Your task to perform on an android device: delete location history Image 0: 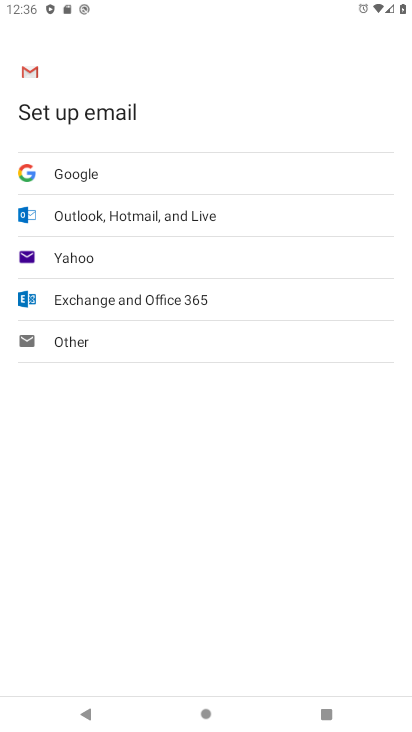
Step 0: press back button
Your task to perform on an android device: delete location history Image 1: 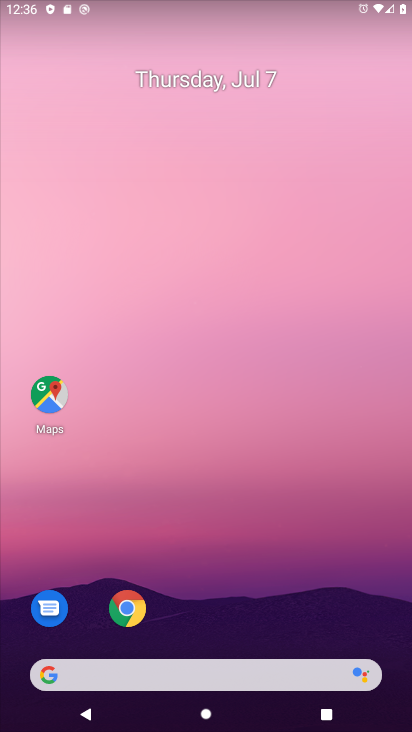
Step 1: click (42, 402)
Your task to perform on an android device: delete location history Image 2: 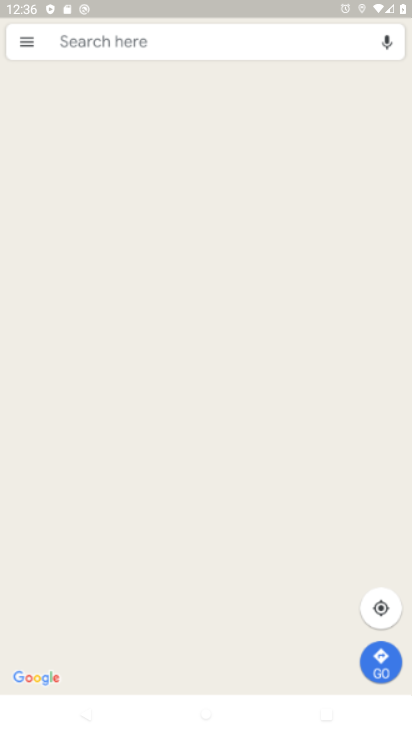
Step 2: click (30, 34)
Your task to perform on an android device: delete location history Image 3: 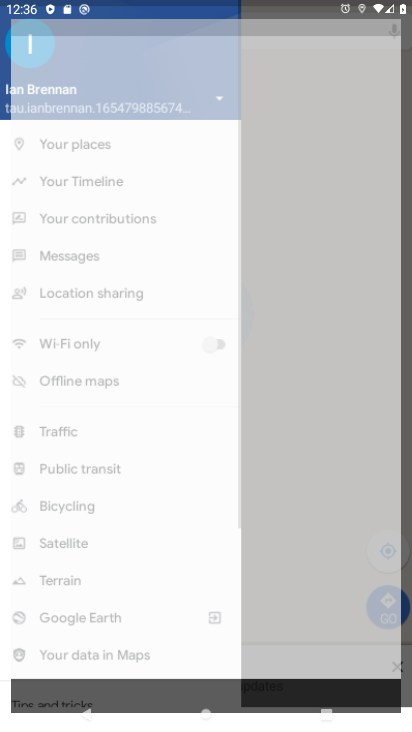
Step 3: click (132, 181)
Your task to perform on an android device: delete location history Image 4: 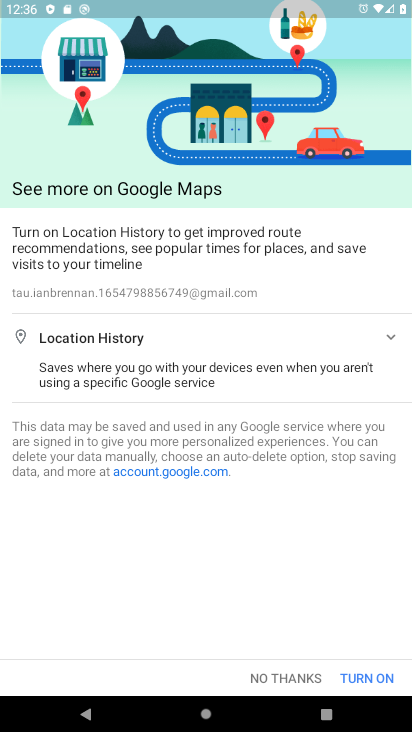
Step 4: click (279, 670)
Your task to perform on an android device: delete location history Image 5: 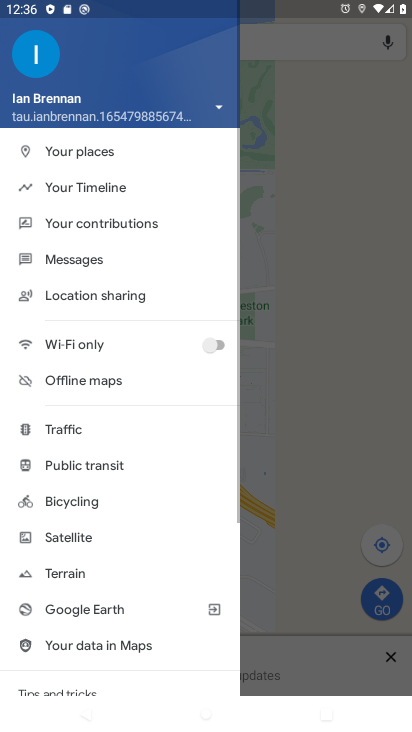
Step 5: click (81, 197)
Your task to perform on an android device: delete location history Image 6: 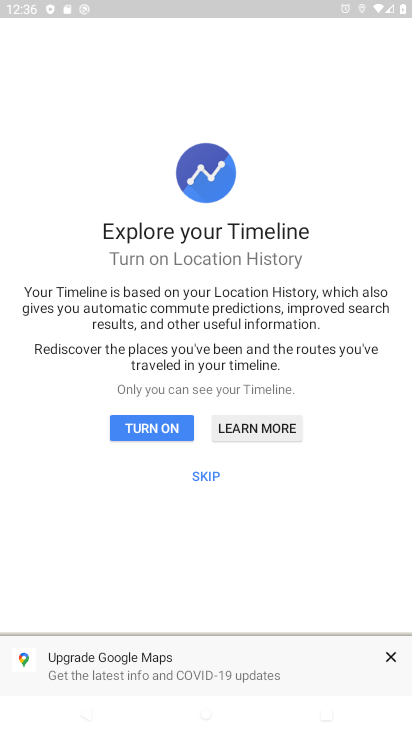
Step 6: click (200, 473)
Your task to perform on an android device: delete location history Image 7: 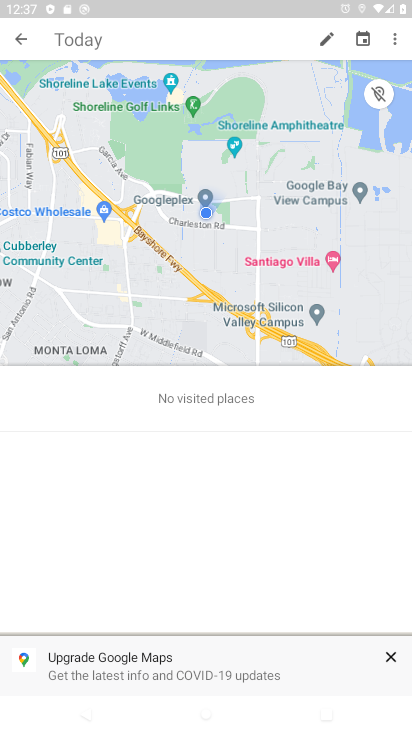
Step 7: click (392, 29)
Your task to perform on an android device: delete location history Image 8: 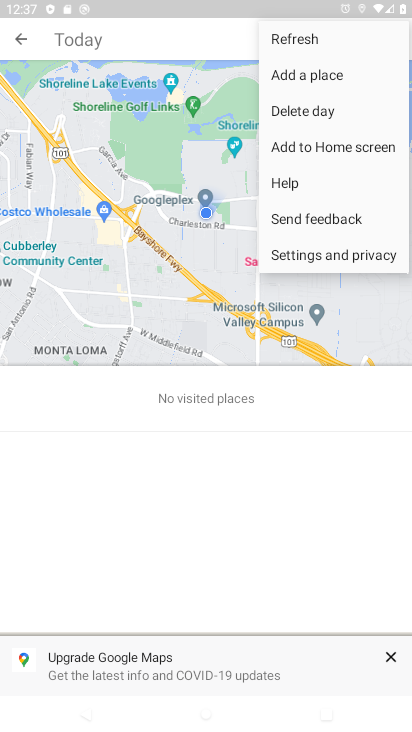
Step 8: click (300, 250)
Your task to perform on an android device: delete location history Image 9: 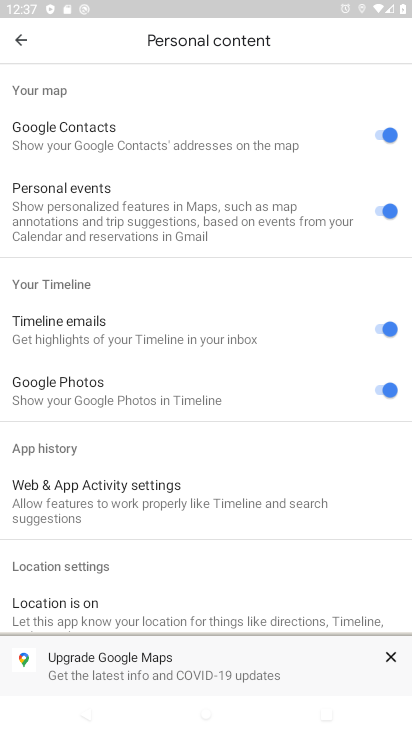
Step 9: drag from (158, 565) to (250, 110)
Your task to perform on an android device: delete location history Image 10: 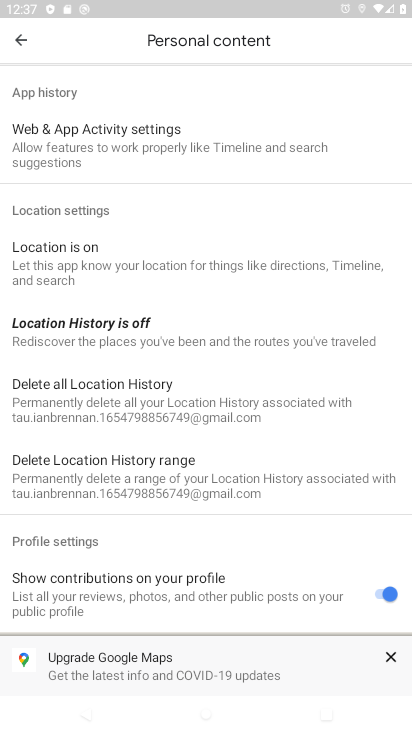
Step 10: click (22, 402)
Your task to perform on an android device: delete location history Image 11: 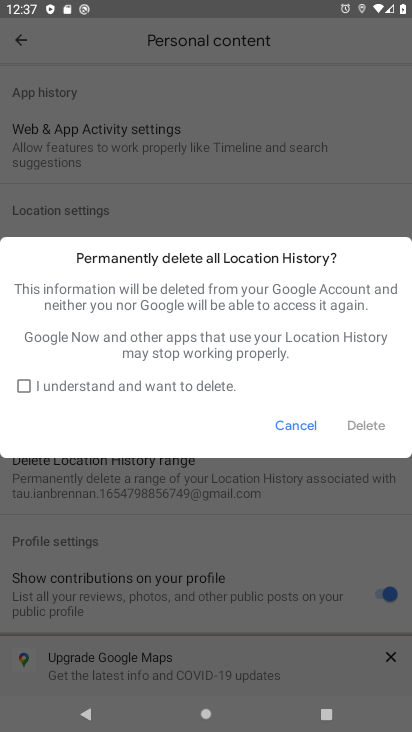
Step 11: click (76, 381)
Your task to perform on an android device: delete location history Image 12: 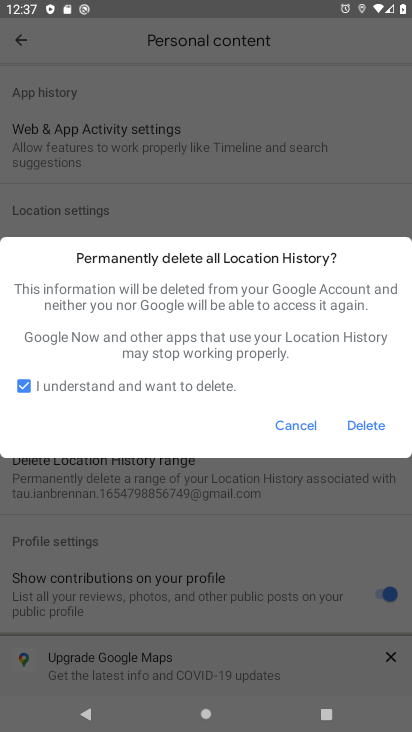
Step 12: click (380, 427)
Your task to perform on an android device: delete location history Image 13: 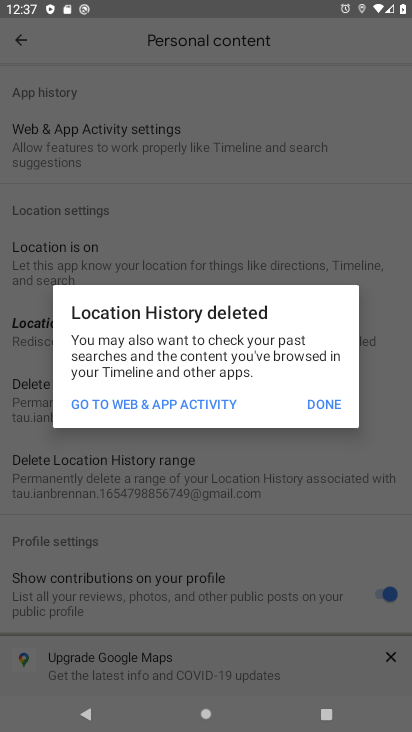
Step 13: click (317, 408)
Your task to perform on an android device: delete location history Image 14: 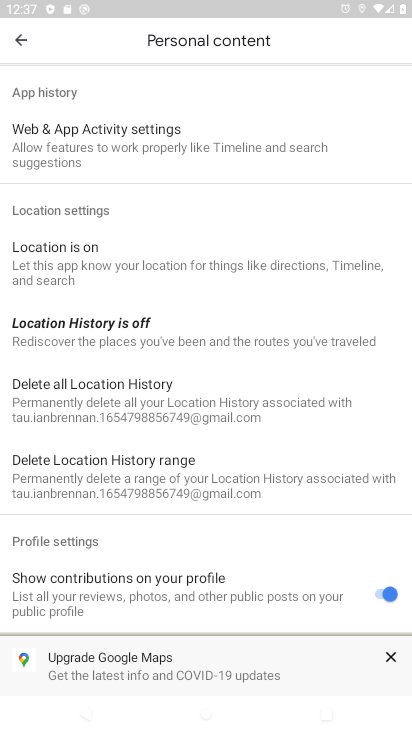
Step 14: task complete